Your task to perform on an android device: star an email in the gmail app Image 0: 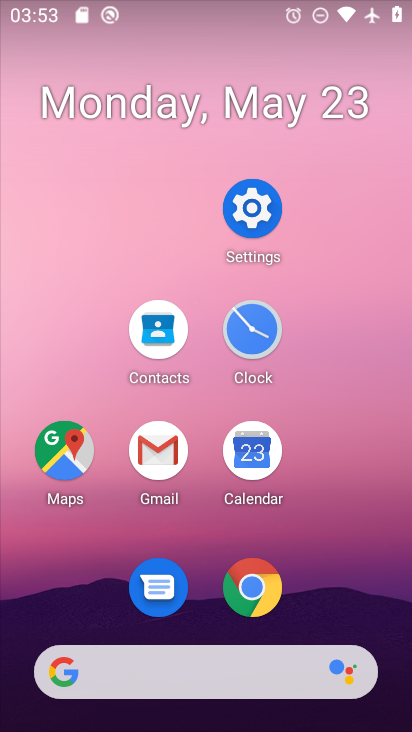
Step 0: click (182, 472)
Your task to perform on an android device: star an email in the gmail app Image 1: 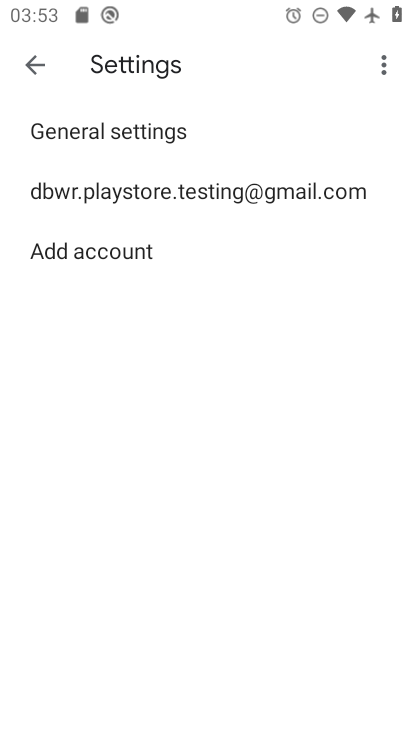
Step 1: click (35, 79)
Your task to perform on an android device: star an email in the gmail app Image 2: 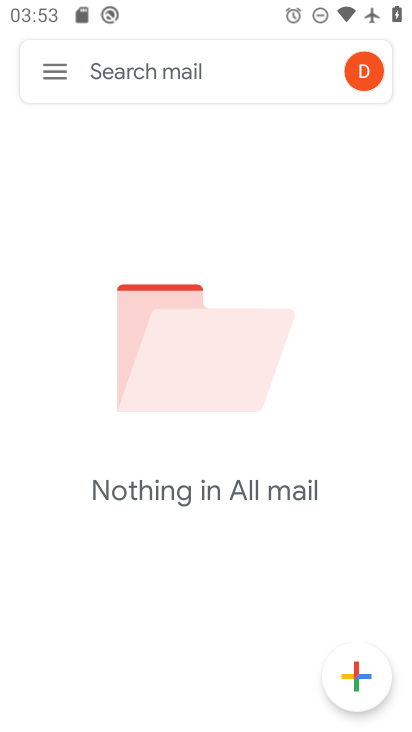
Step 2: click (35, 79)
Your task to perform on an android device: star an email in the gmail app Image 3: 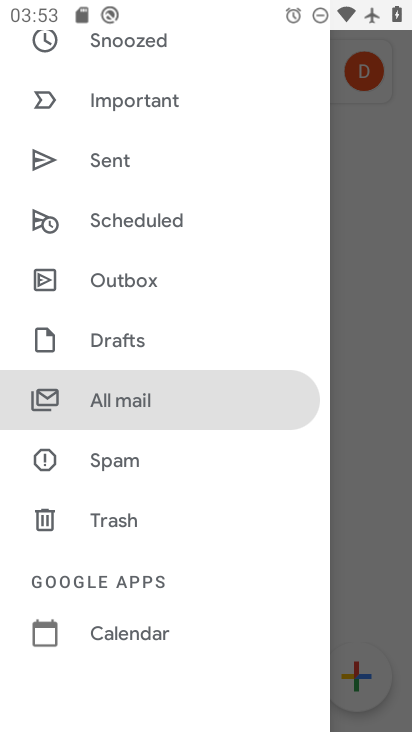
Step 3: task complete